Your task to perform on an android device: Clear all items from cart on bestbuy. Search for rayovac triple a on bestbuy, select the first entry, add it to the cart, then select checkout. Image 0: 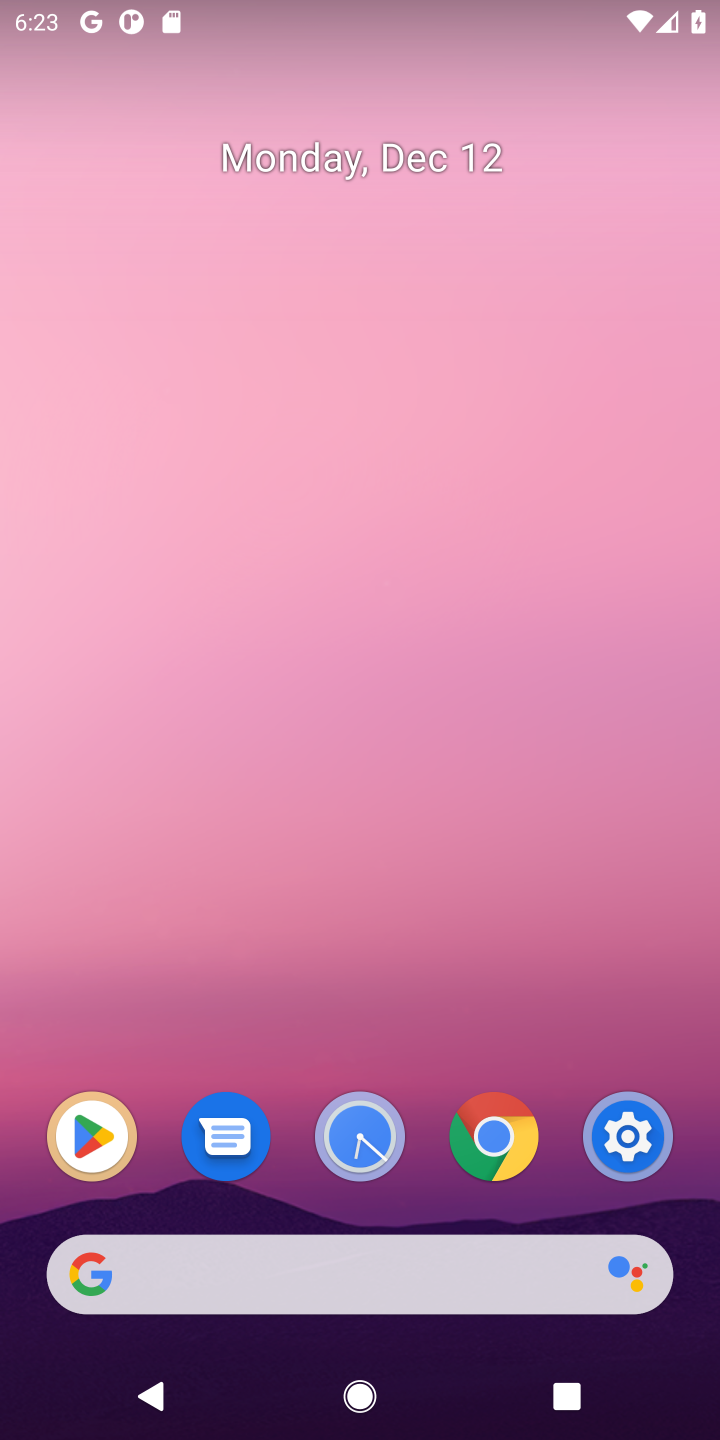
Step 0: click (484, 1144)
Your task to perform on an android device: Clear all items from cart on bestbuy. Search for rayovac triple a on bestbuy, select the first entry, add it to the cart, then select checkout. Image 1: 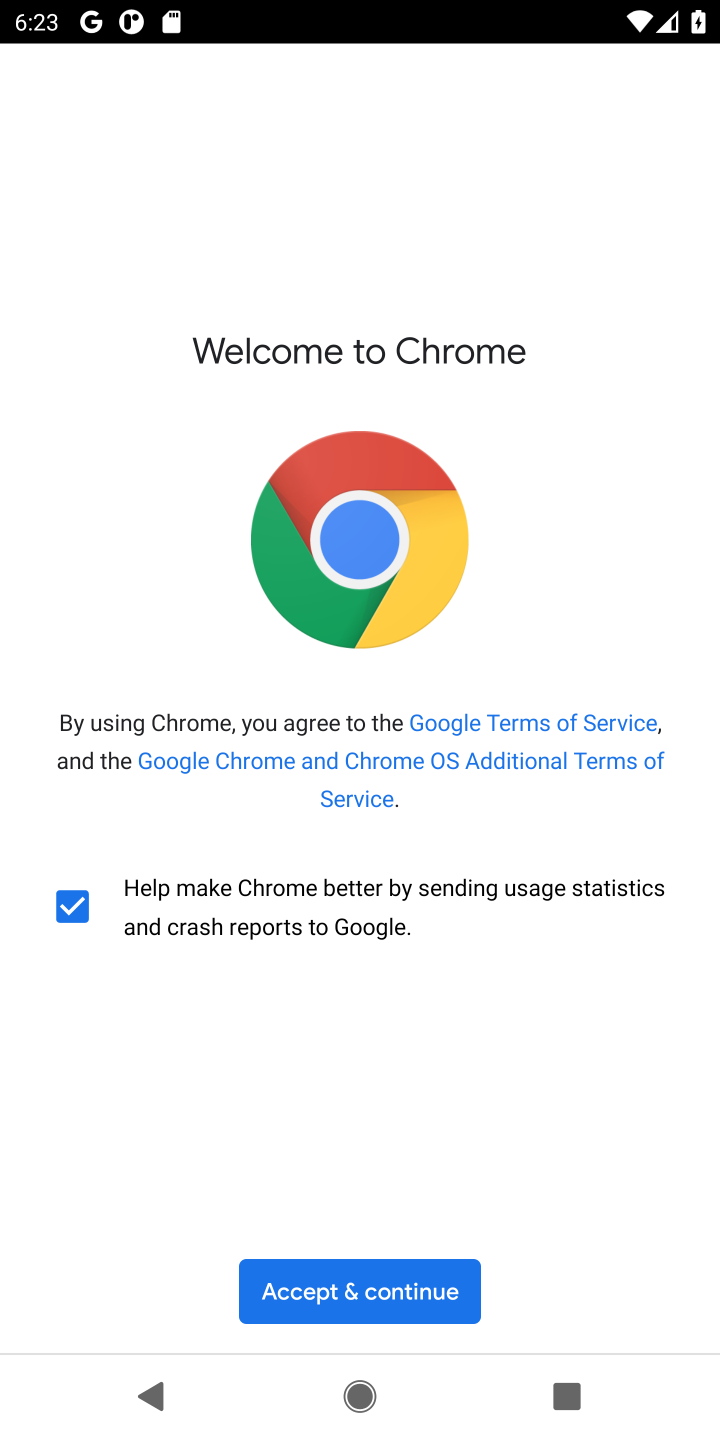
Step 1: click (331, 1294)
Your task to perform on an android device: Clear all items from cart on bestbuy. Search for rayovac triple a on bestbuy, select the first entry, add it to the cart, then select checkout. Image 2: 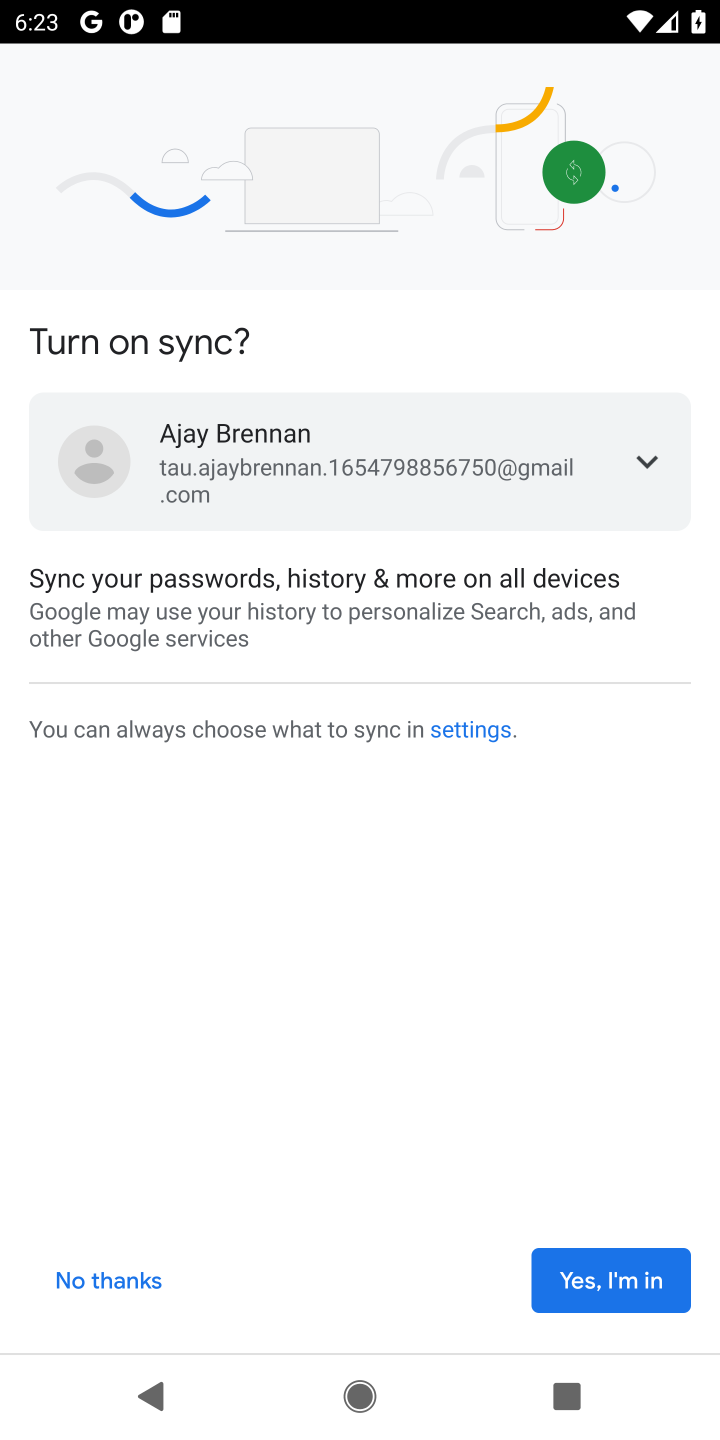
Step 2: click (84, 1294)
Your task to perform on an android device: Clear all items from cart on bestbuy. Search for rayovac triple a on bestbuy, select the first entry, add it to the cart, then select checkout. Image 3: 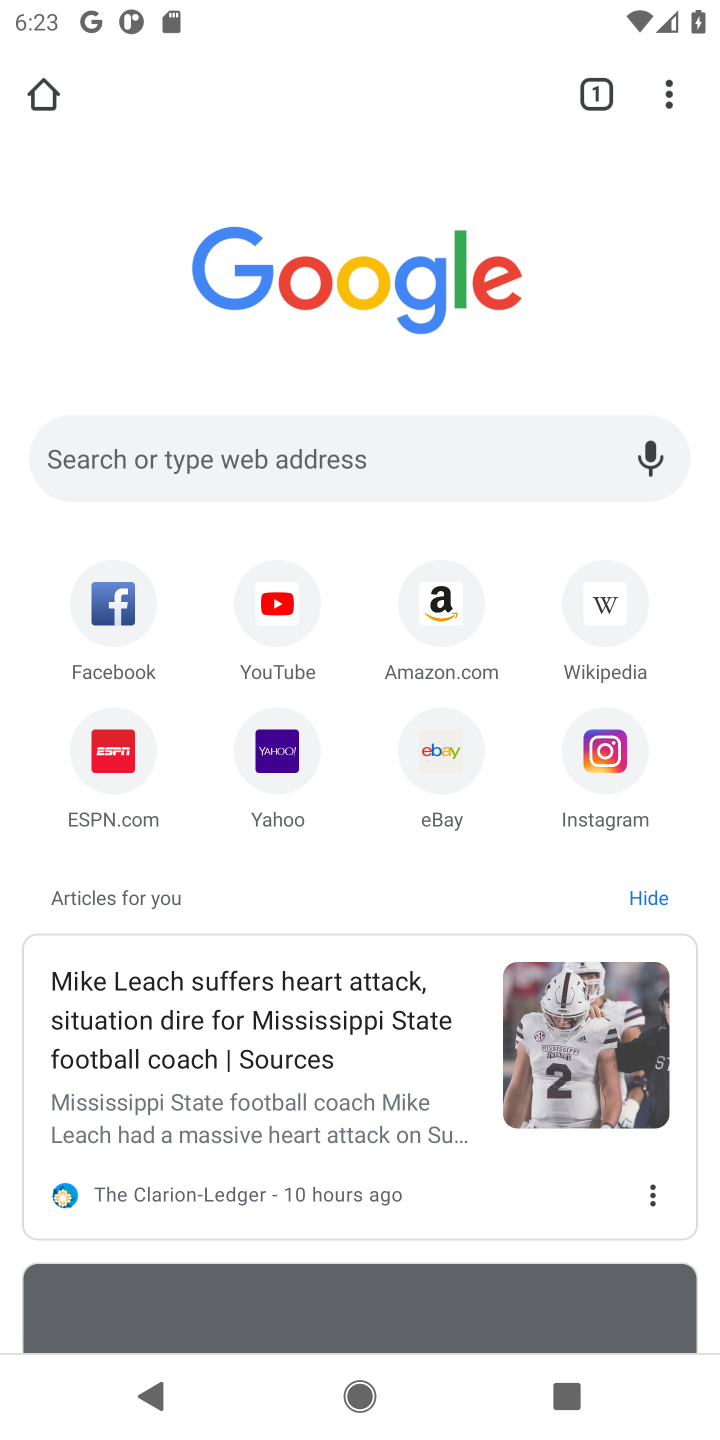
Step 3: click (152, 455)
Your task to perform on an android device: Clear all items from cart on bestbuy. Search for rayovac triple a on bestbuy, select the first entry, add it to the cart, then select checkout. Image 4: 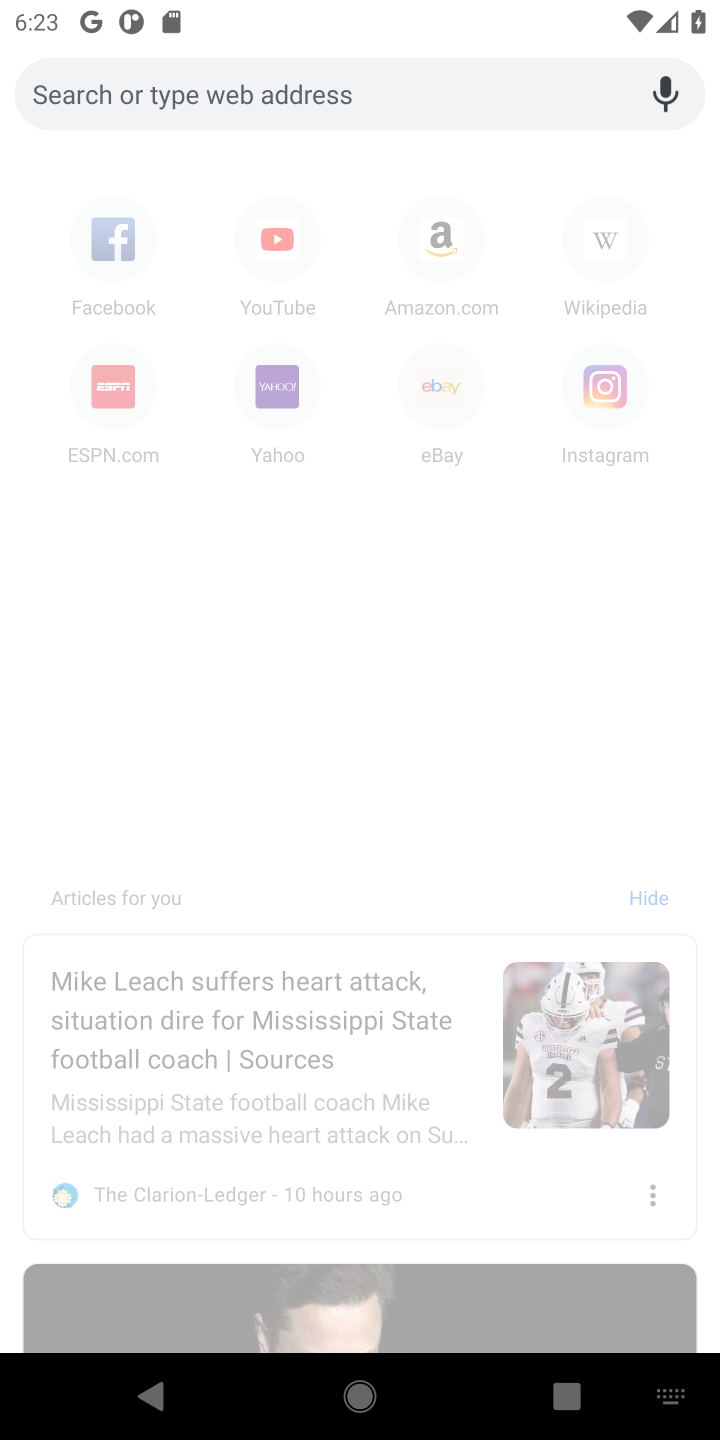
Step 4: type "bestbuy.com"
Your task to perform on an android device: Clear all items from cart on bestbuy. Search for rayovac triple a on bestbuy, select the first entry, add it to the cart, then select checkout. Image 5: 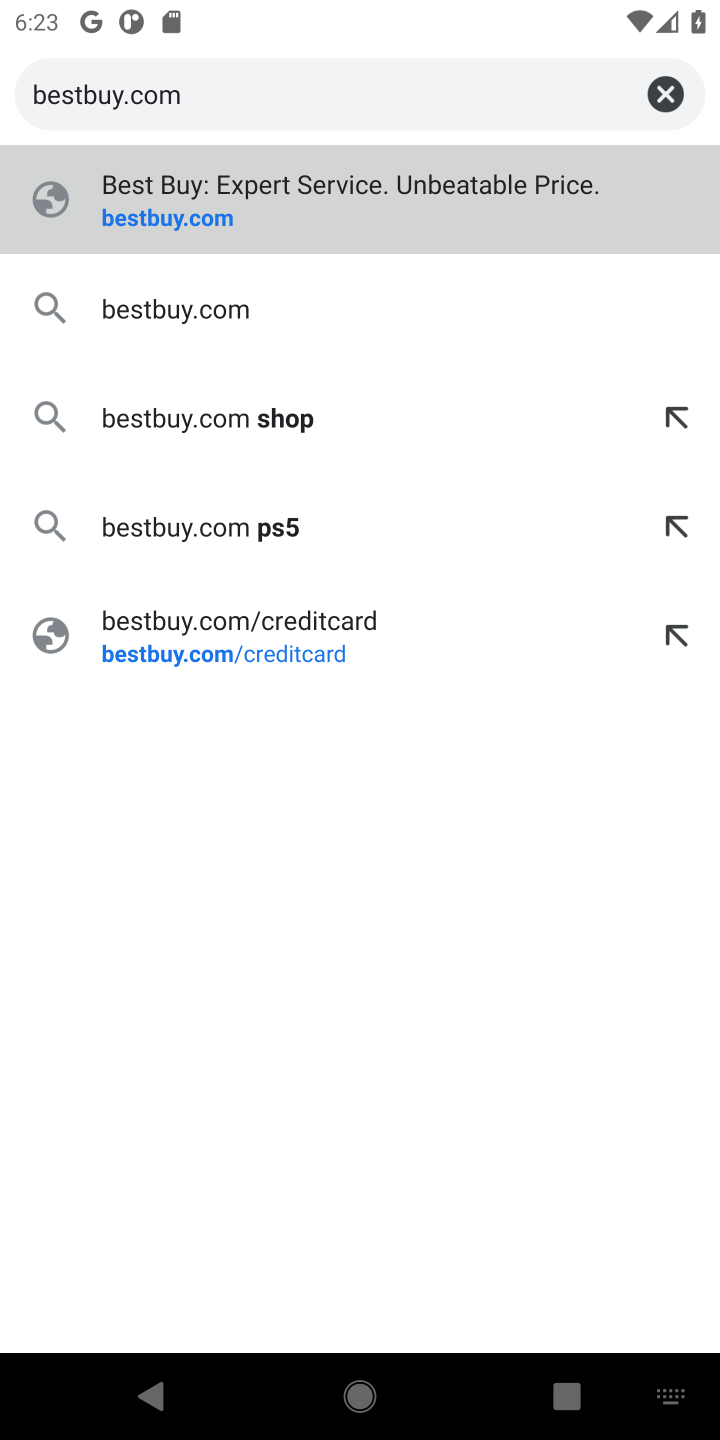
Step 5: click (167, 201)
Your task to perform on an android device: Clear all items from cart on bestbuy. Search for rayovac triple a on bestbuy, select the first entry, add it to the cart, then select checkout. Image 6: 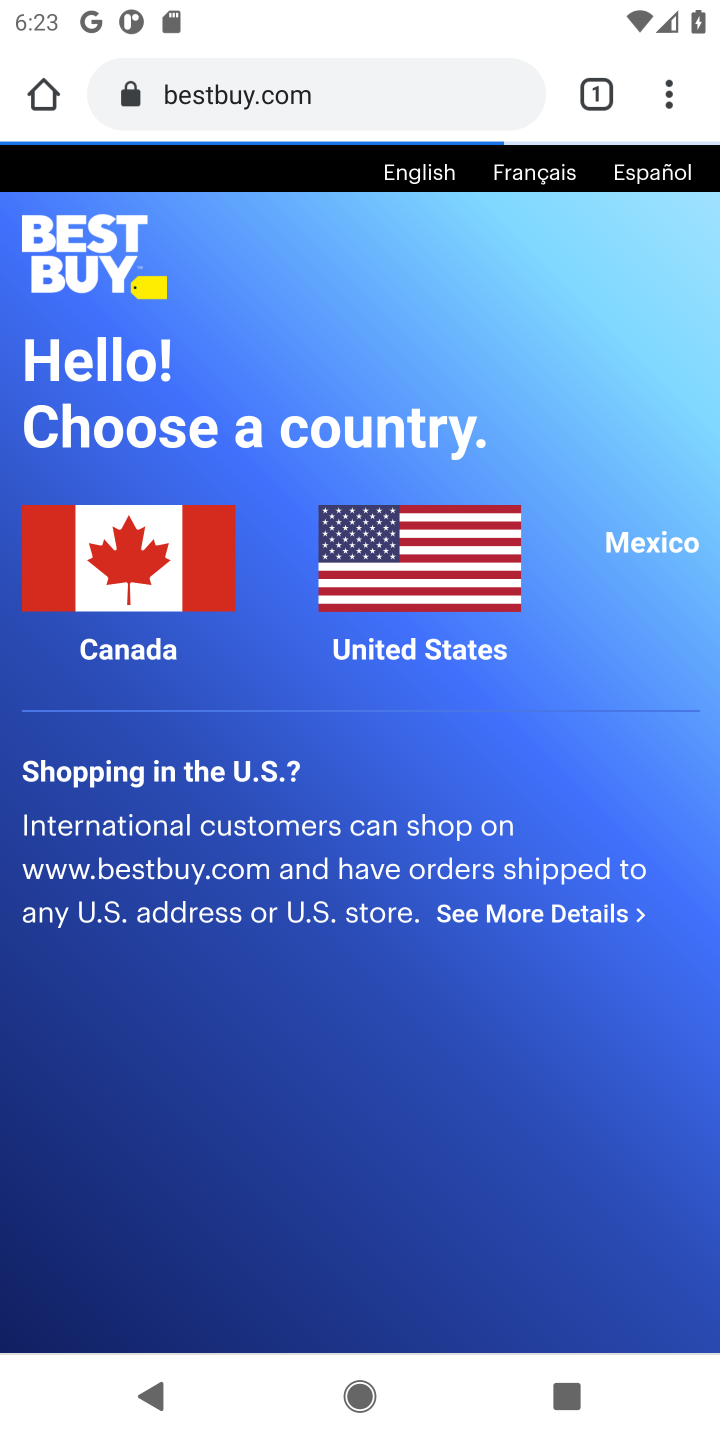
Step 6: click (411, 589)
Your task to perform on an android device: Clear all items from cart on bestbuy. Search for rayovac triple a on bestbuy, select the first entry, add it to the cart, then select checkout. Image 7: 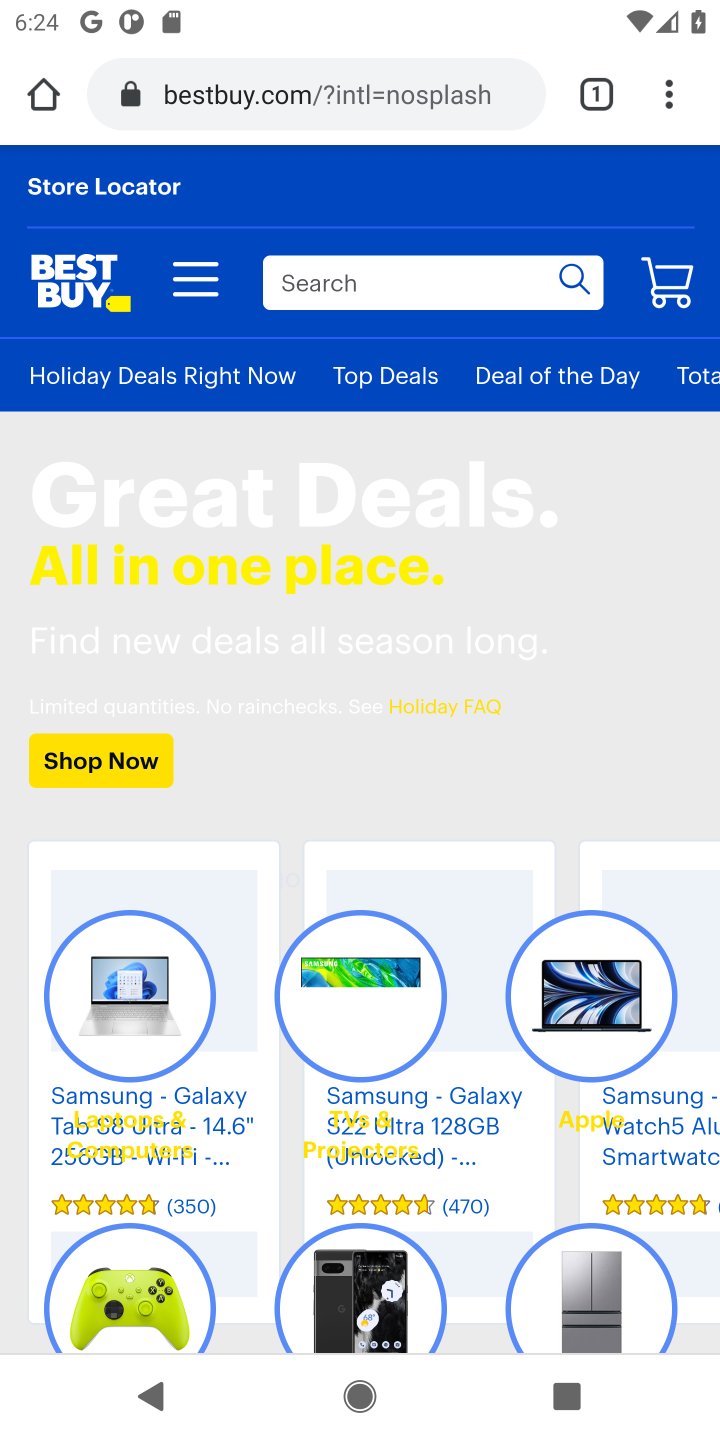
Step 7: click (688, 286)
Your task to perform on an android device: Clear all items from cart on bestbuy. Search for rayovac triple a on bestbuy, select the first entry, add it to the cart, then select checkout. Image 8: 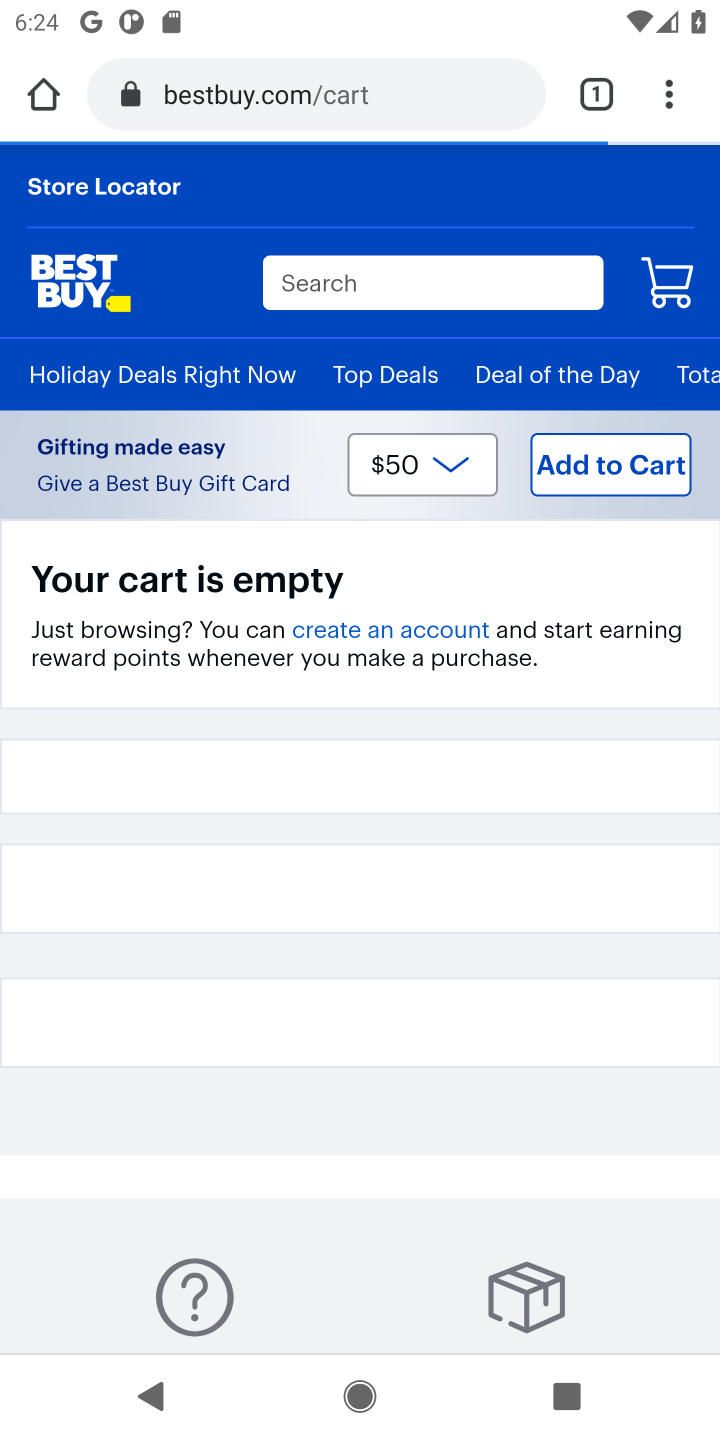
Step 8: click (297, 286)
Your task to perform on an android device: Clear all items from cart on bestbuy. Search for rayovac triple a on bestbuy, select the first entry, add it to the cart, then select checkout. Image 9: 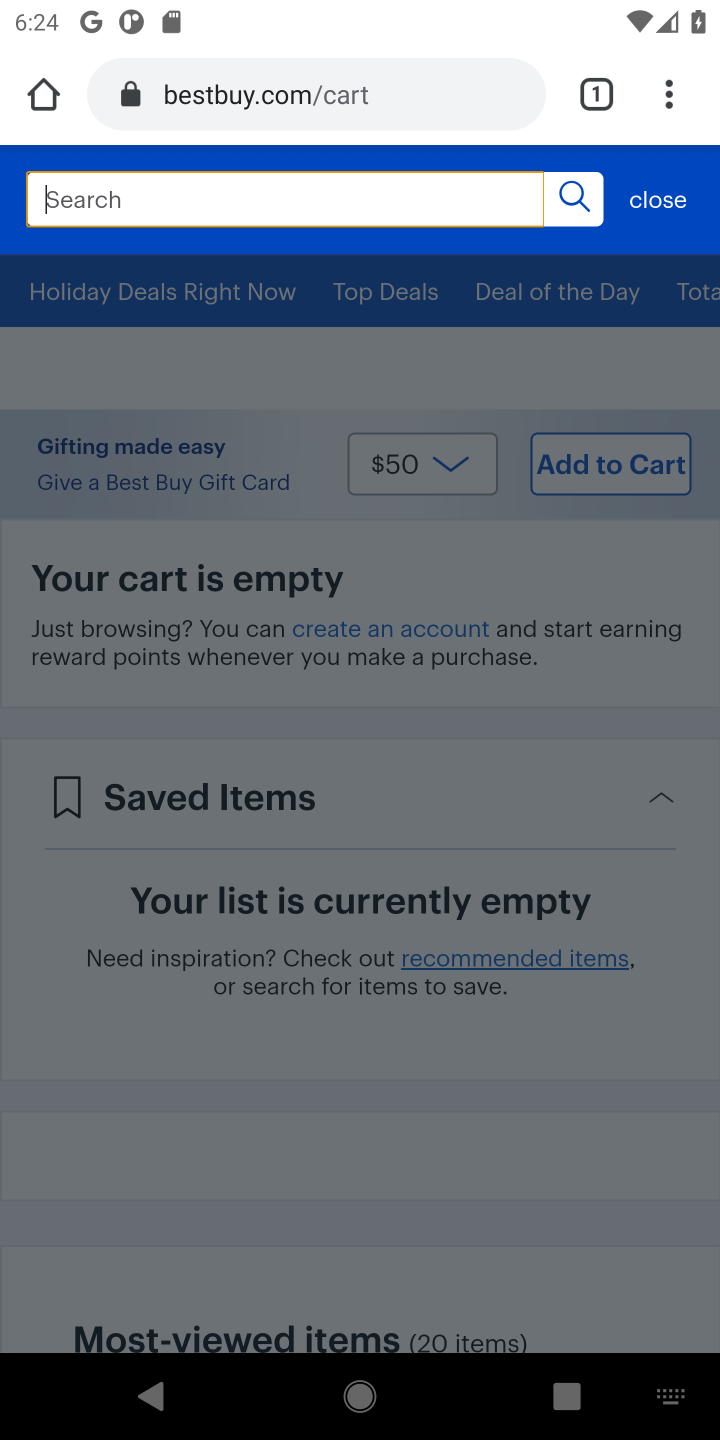
Step 9: type "rayovac triple a "
Your task to perform on an android device: Clear all items from cart on bestbuy. Search for rayovac triple a on bestbuy, select the first entry, add it to the cart, then select checkout. Image 10: 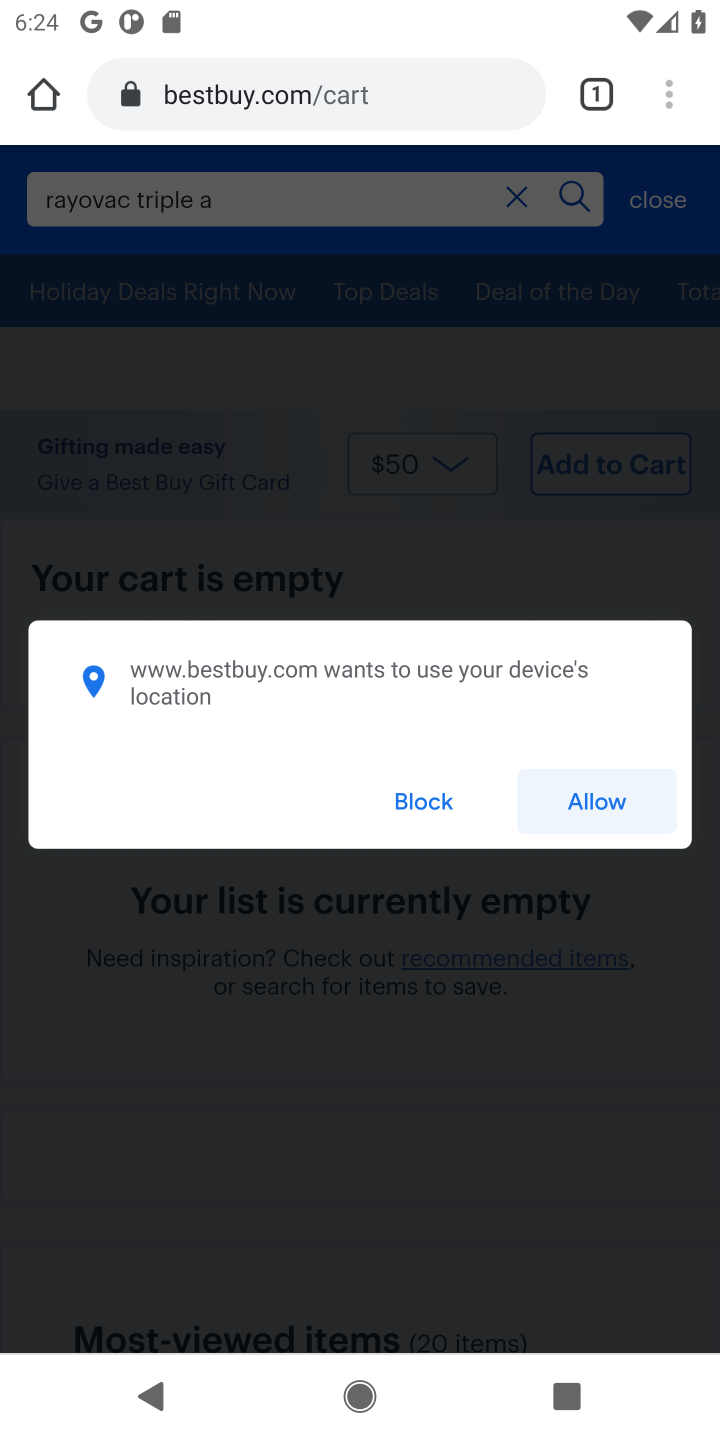
Step 10: click (422, 807)
Your task to perform on an android device: Clear all items from cart on bestbuy. Search for rayovac triple a on bestbuy, select the first entry, add it to the cart, then select checkout. Image 11: 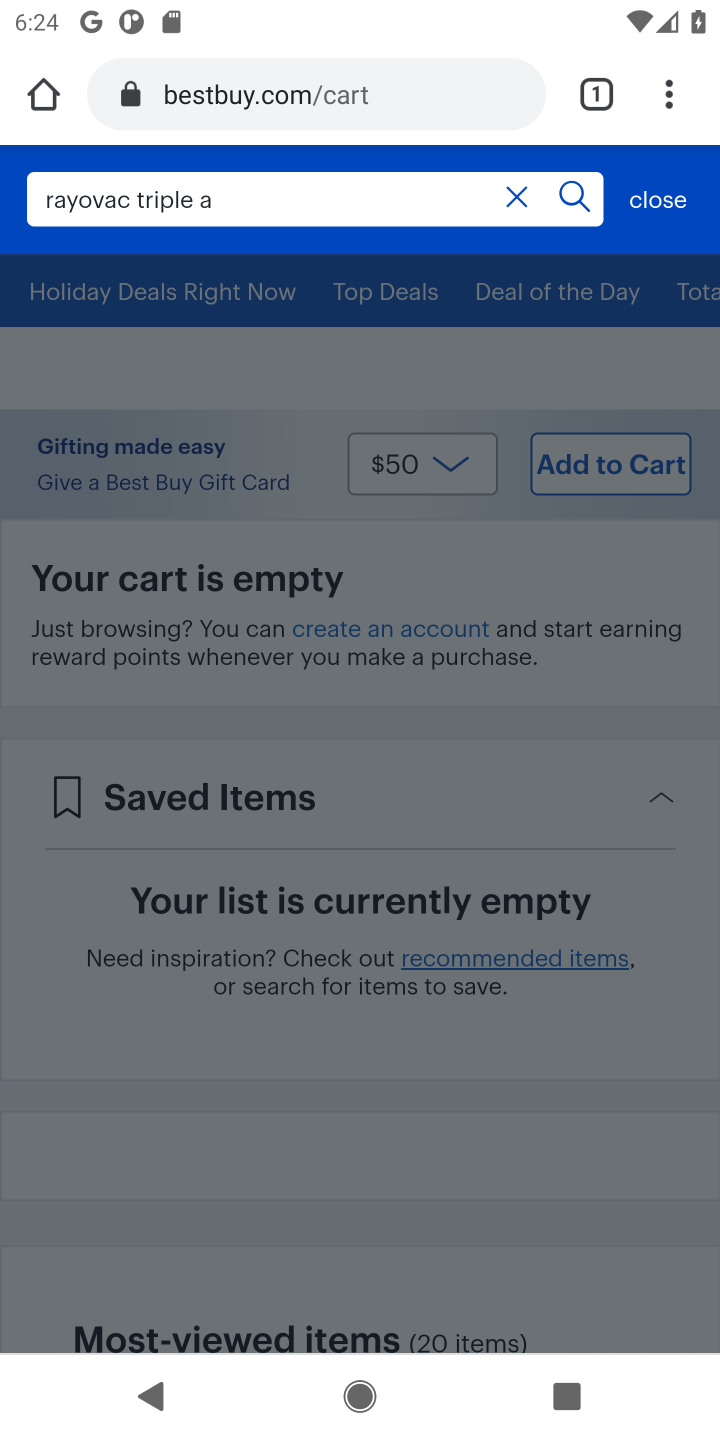
Step 11: click (560, 194)
Your task to perform on an android device: Clear all items from cart on bestbuy. Search for rayovac triple a on bestbuy, select the first entry, add it to the cart, then select checkout. Image 12: 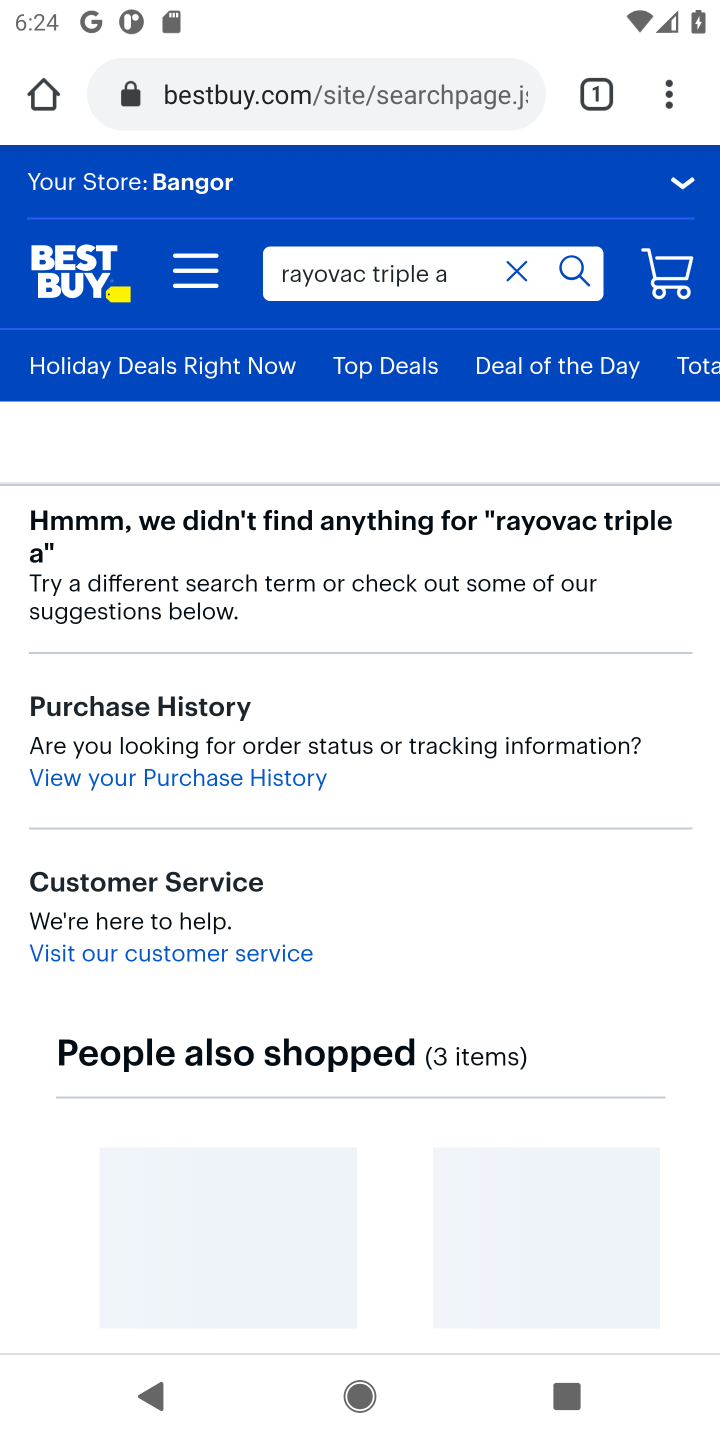
Step 12: task complete